Your task to perform on an android device: change alarm snooze length Image 0: 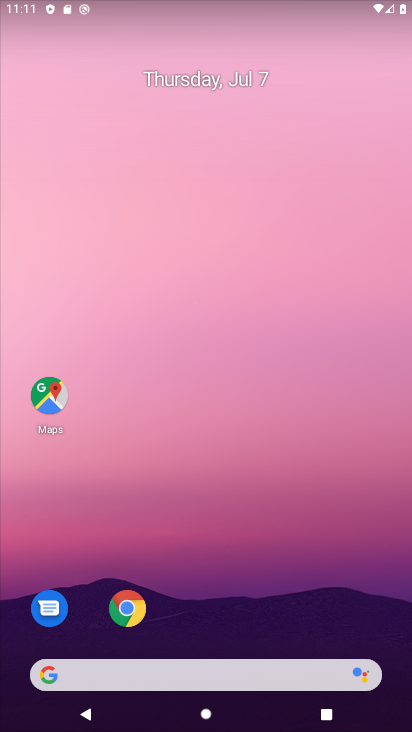
Step 0: drag from (289, 602) to (260, 163)
Your task to perform on an android device: change alarm snooze length Image 1: 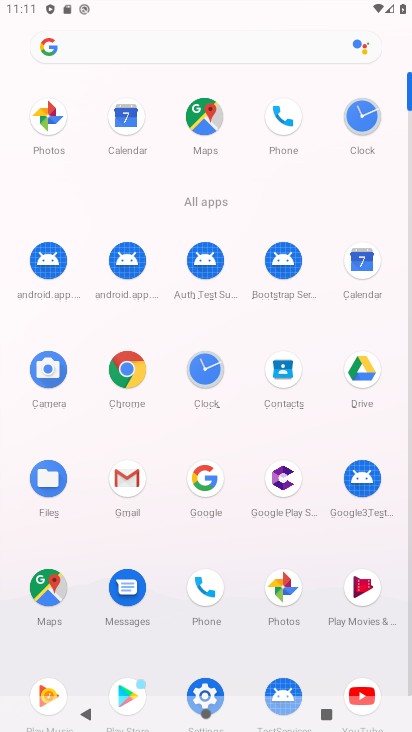
Step 1: click (359, 140)
Your task to perform on an android device: change alarm snooze length Image 2: 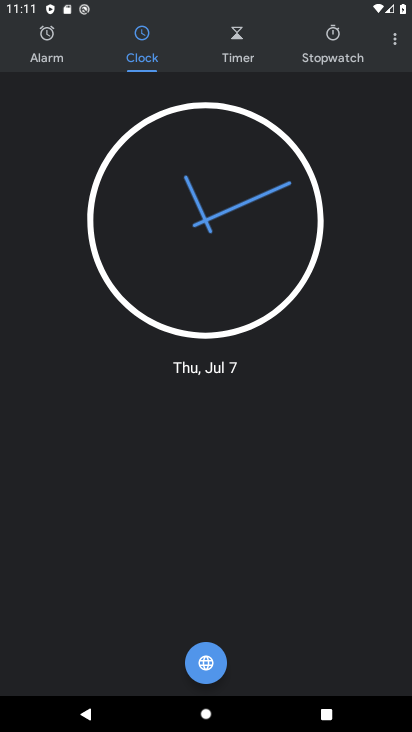
Step 2: click (393, 41)
Your task to perform on an android device: change alarm snooze length Image 3: 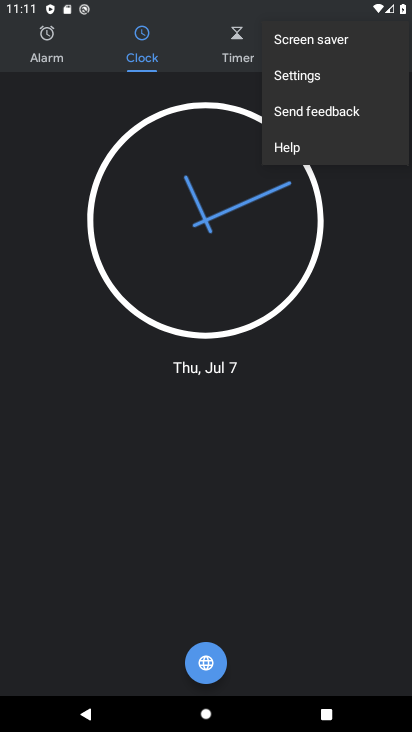
Step 3: click (352, 72)
Your task to perform on an android device: change alarm snooze length Image 4: 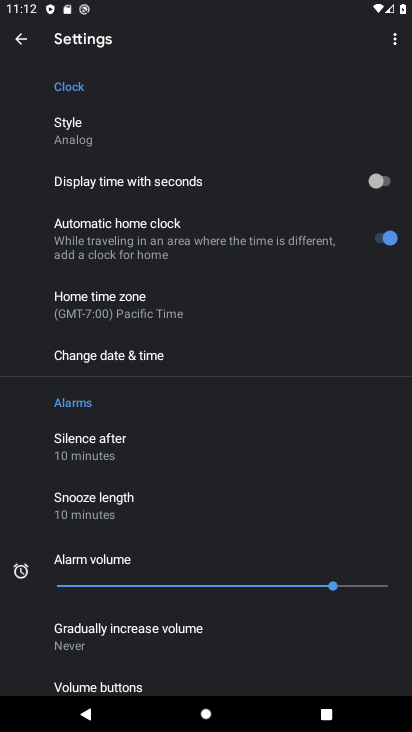
Step 4: click (111, 492)
Your task to perform on an android device: change alarm snooze length Image 5: 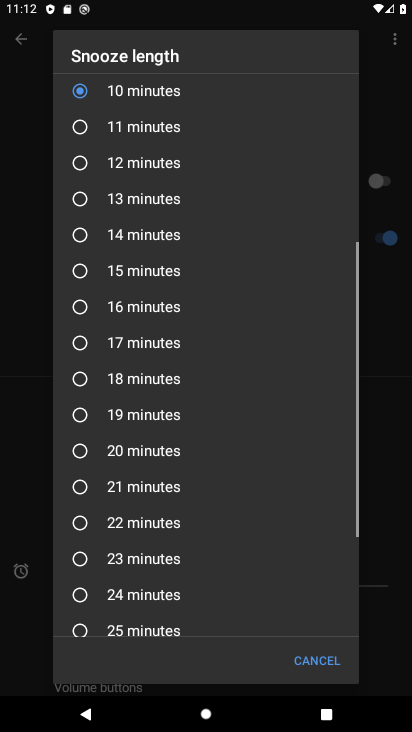
Step 5: click (169, 211)
Your task to perform on an android device: change alarm snooze length Image 6: 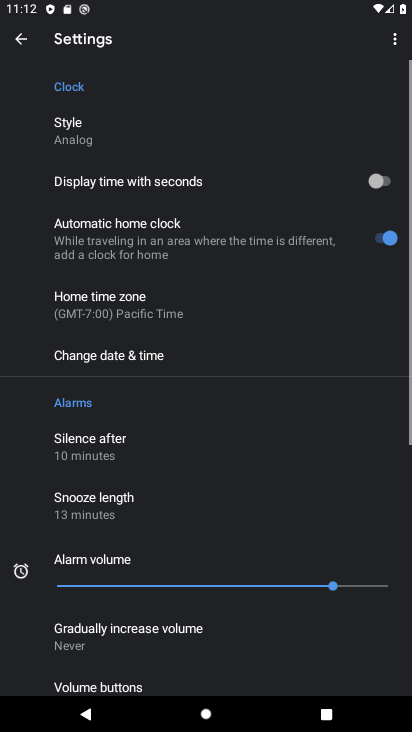
Step 6: task complete